Your task to perform on an android device: change notification settings in the gmail app Image 0: 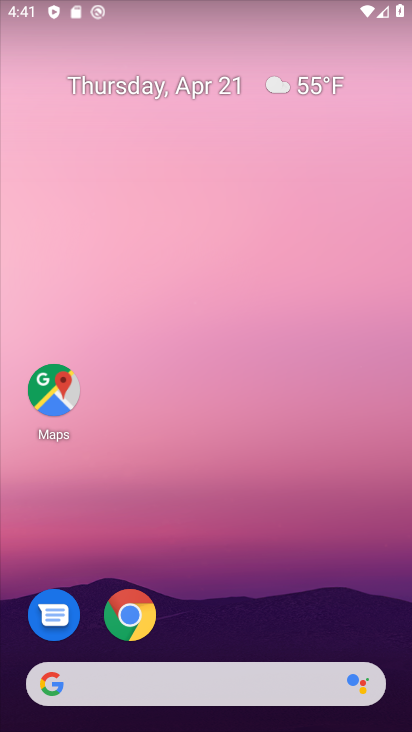
Step 0: drag from (225, 590) to (169, 9)
Your task to perform on an android device: change notification settings in the gmail app Image 1: 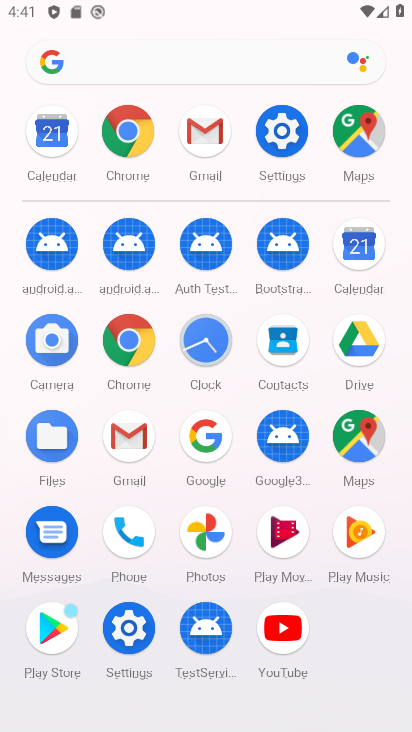
Step 1: drag from (8, 521) to (3, 297)
Your task to perform on an android device: change notification settings in the gmail app Image 2: 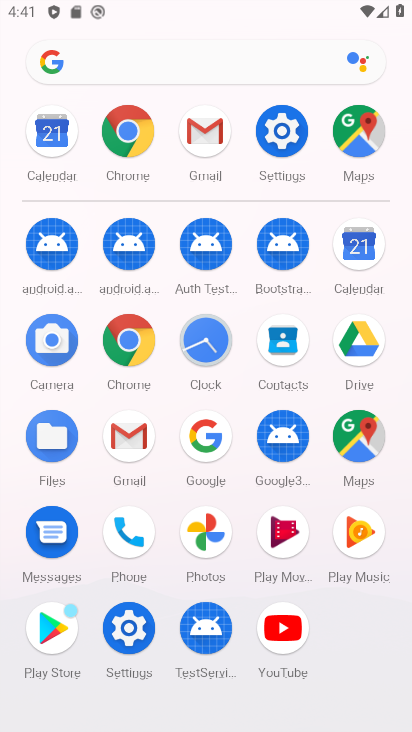
Step 2: click (204, 122)
Your task to perform on an android device: change notification settings in the gmail app Image 3: 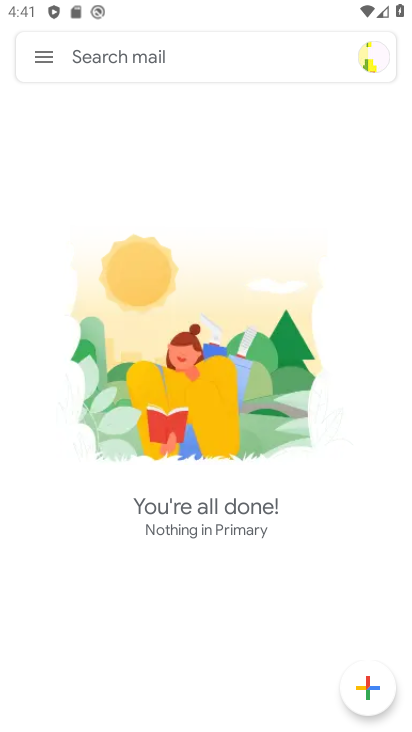
Step 3: click (34, 46)
Your task to perform on an android device: change notification settings in the gmail app Image 4: 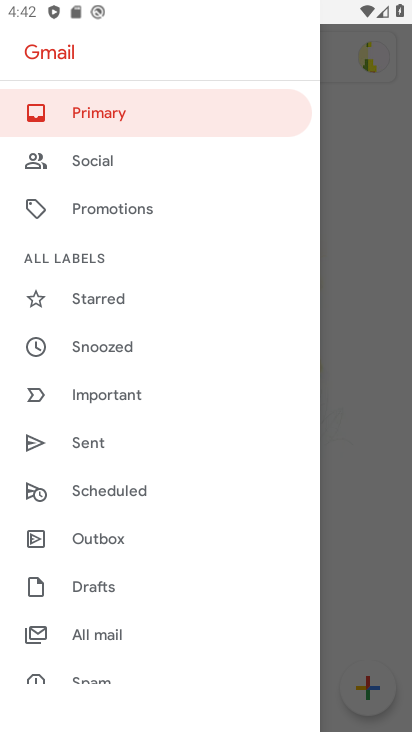
Step 4: drag from (169, 522) to (175, 150)
Your task to perform on an android device: change notification settings in the gmail app Image 5: 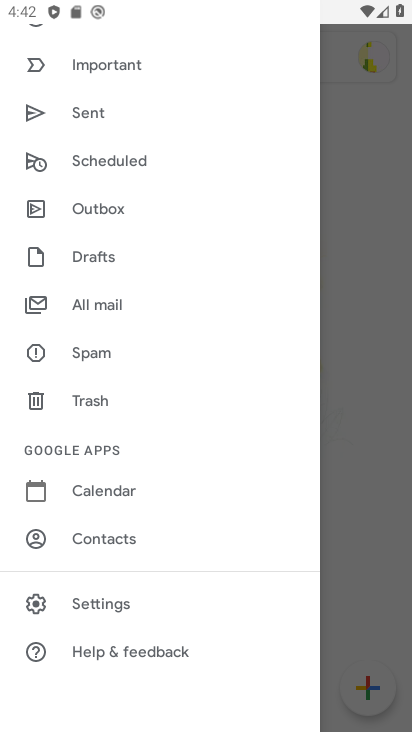
Step 5: click (108, 594)
Your task to perform on an android device: change notification settings in the gmail app Image 6: 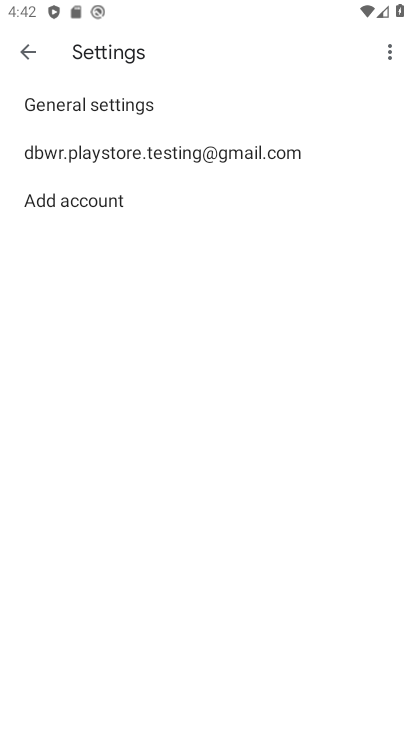
Step 6: click (236, 150)
Your task to perform on an android device: change notification settings in the gmail app Image 7: 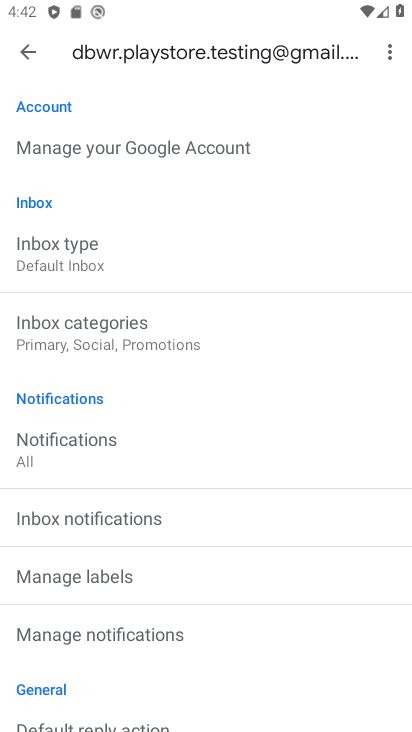
Step 7: drag from (276, 505) to (286, 264)
Your task to perform on an android device: change notification settings in the gmail app Image 8: 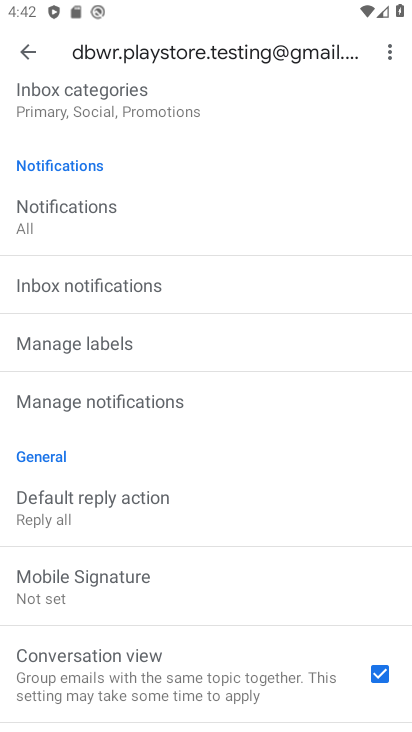
Step 8: click (137, 403)
Your task to perform on an android device: change notification settings in the gmail app Image 9: 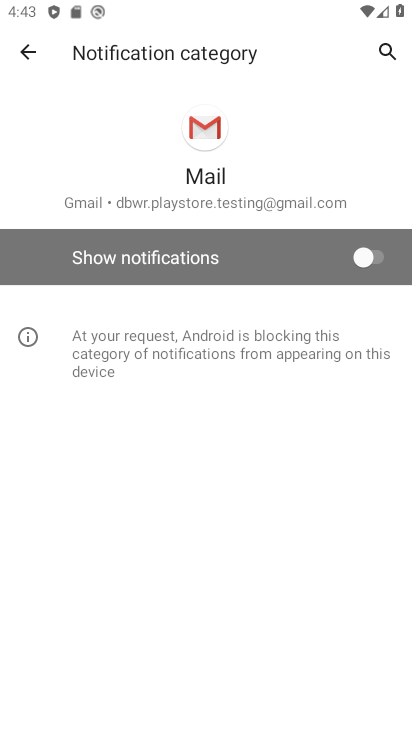
Step 9: click (352, 257)
Your task to perform on an android device: change notification settings in the gmail app Image 10: 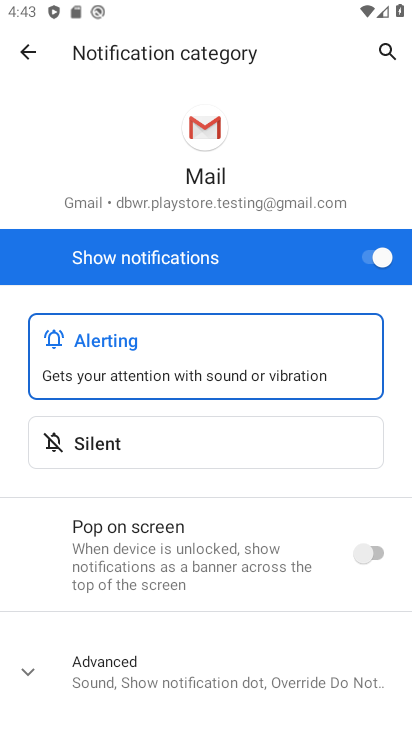
Step 10: task complete